Your task to perform on an android device: Check the news Image 0: 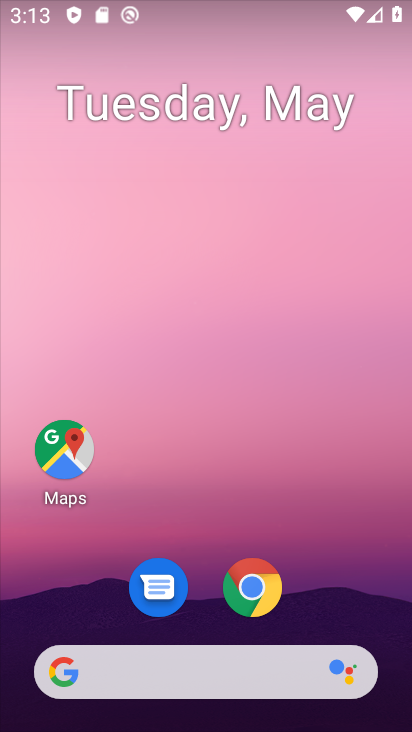
Step 0: drag from (299, 573) to (361, 237)
Your task to perform on an android device: Check the news Image 1: 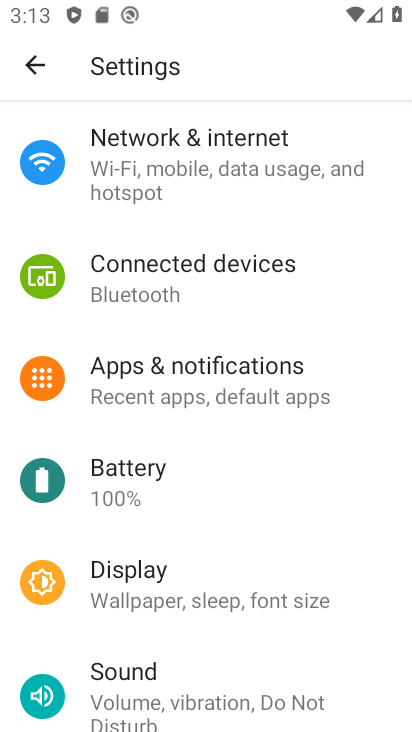
Step 1: press home button
Your task to perform on an android device: Check the news Image 2: 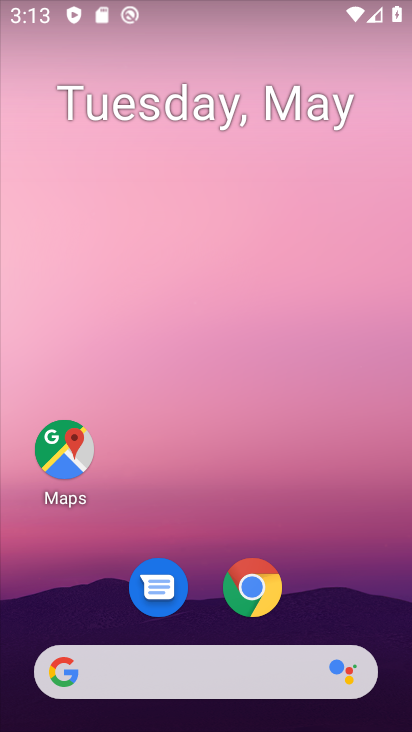
Step 2: click (249, 566)
Your task to perform on an android device: Check the news Image 3: 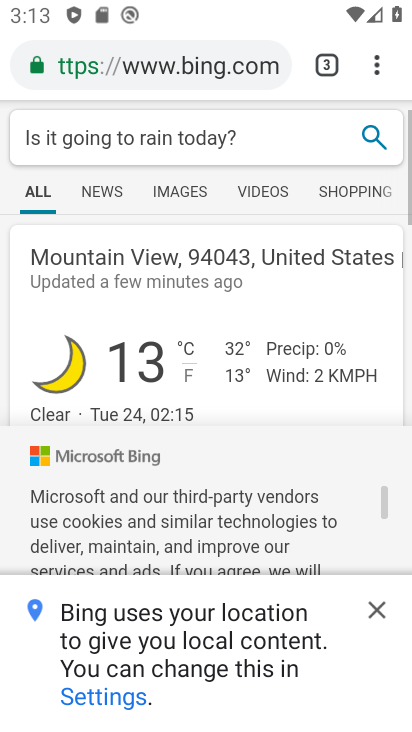
Step 3: click (364, 65)
Your task to perform on an android device: Check the news Image 4: 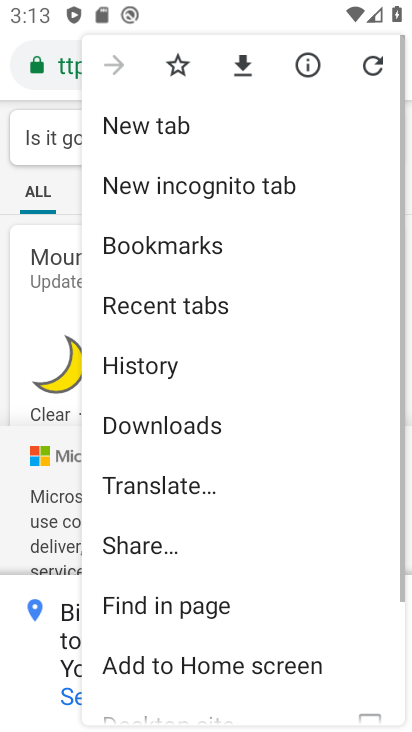
Step 4: click (173, 118)
Your task to perform on an android device: Check the news Image 5: 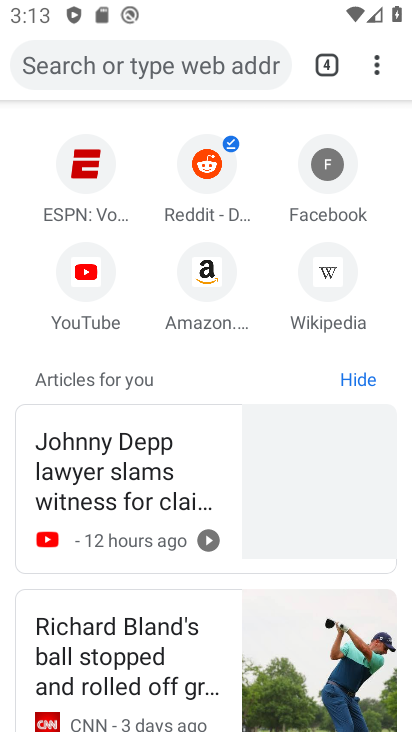
Step 5: click (167, 56)
Your task to perform on an android device: Check the news Image 6: 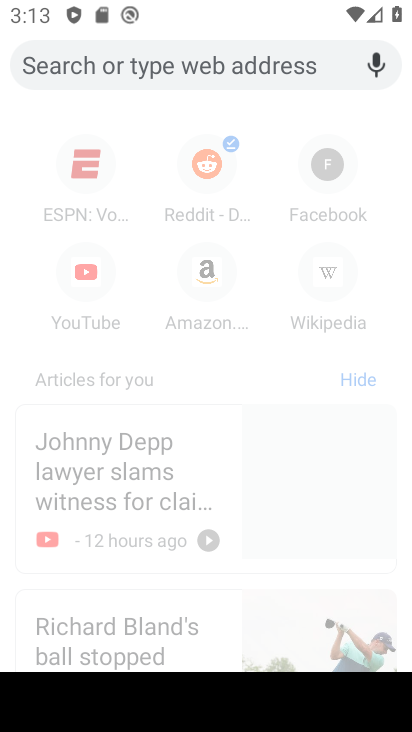
Step 6: type "Check the news"
Your task to perform on an android device: Check the news Image 7: 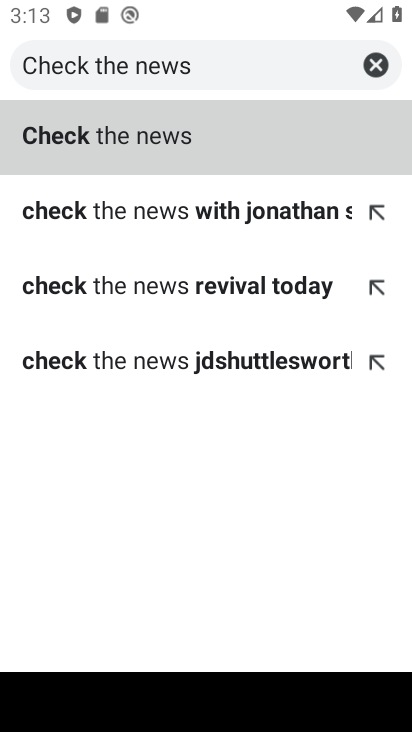
Step 7: click (344, 115)
Your task to perform on an android device: Check the news Image 8: 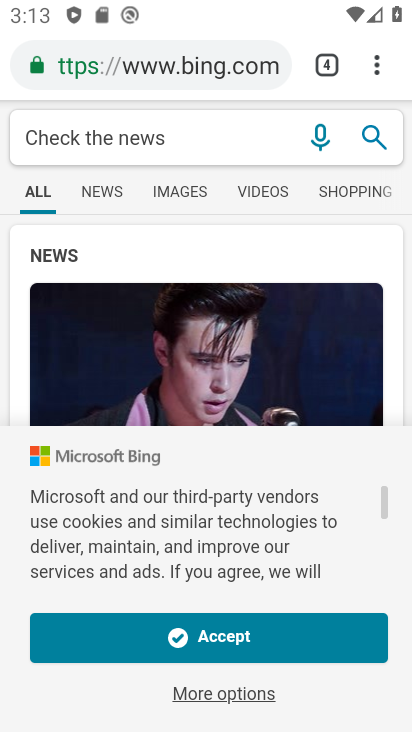
Step 8: task complete